Your task to perform on an android device: add a contact Image 0: 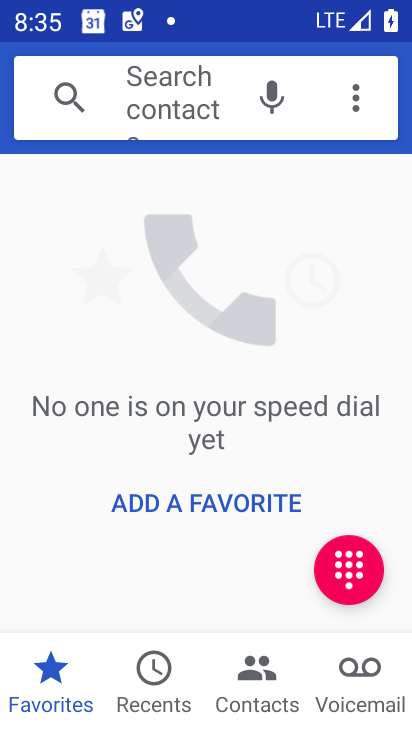
Step 0: click (235, 664)
Your task to perform on an android device: add a contact Image 1: 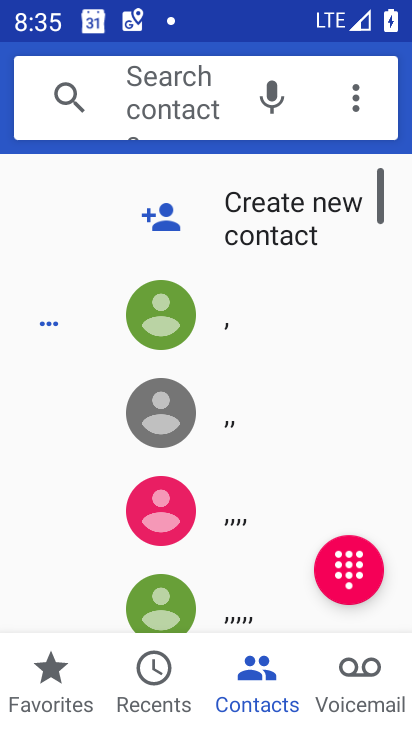
Step 1: click (211, 208)
Your task to perform on an android device: add a contact Image 2: 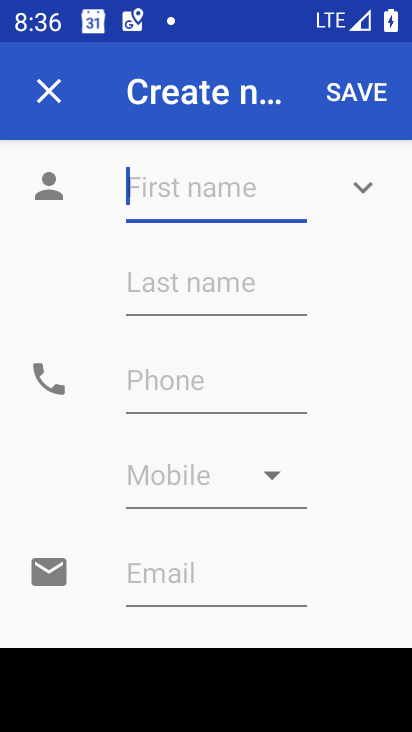
Step 2: type "mgjhhh"
Your task to perform on an android device: add a contact Image 3: 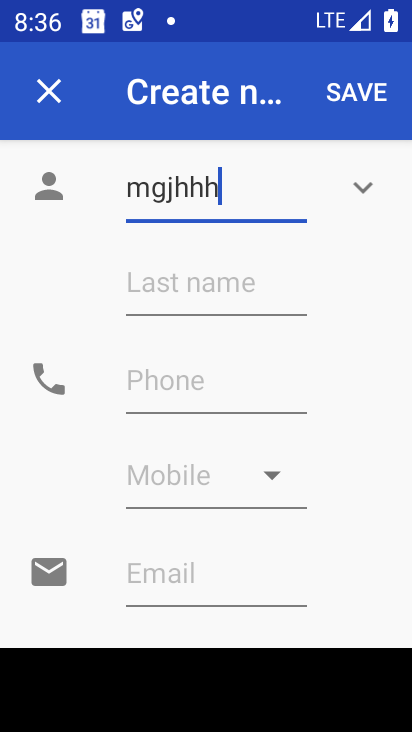
Step 3: click (248, 297)
Your task to perform on an android device: add a contact Image 4: 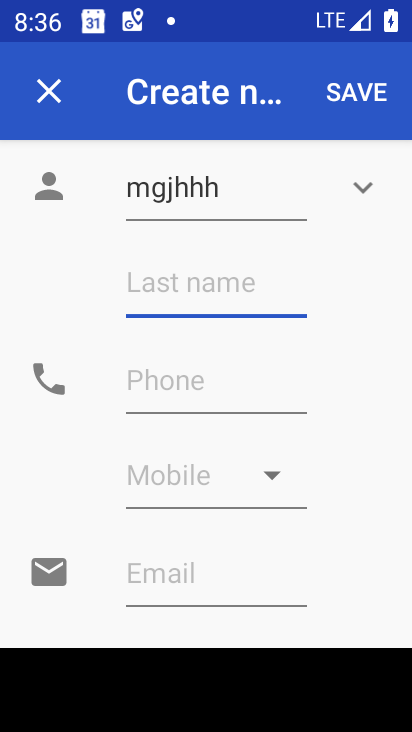
Step 4: type "mkvhk"
Your task to perform on an android device: add a contact Image 5: 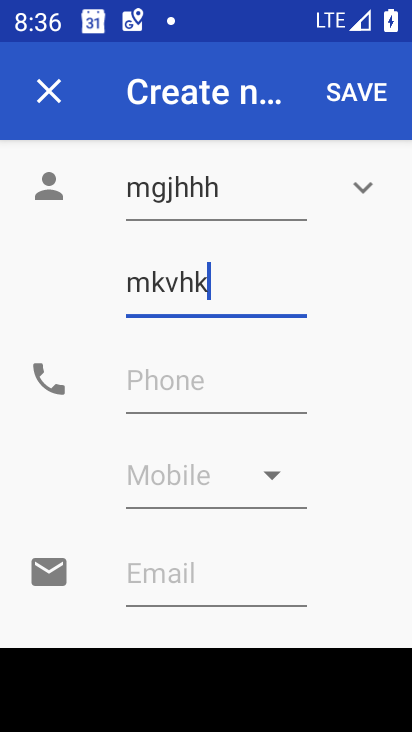
Step 5: click (233, 394)
Your task to perform on an android device: add a contact Image 6: 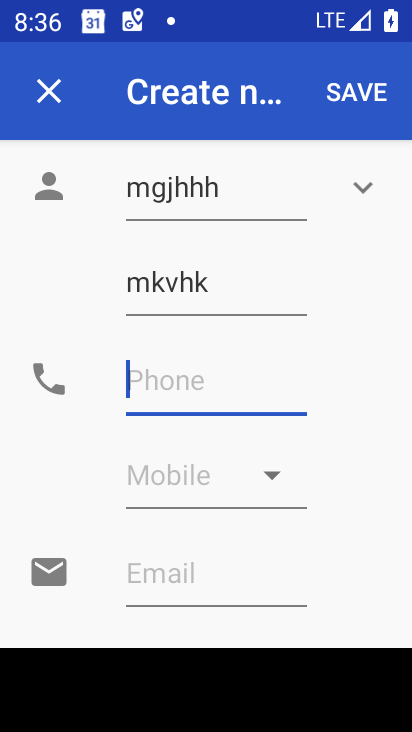
Step 6: type "78658567"
Your task to perform on an android device: add a contact Image 7: 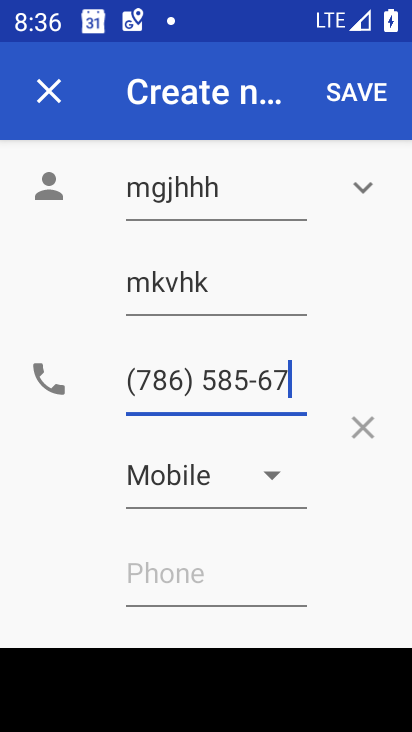
Step 7: click (364, 88)
Your task to perform on an android device: add a contact Image 8: 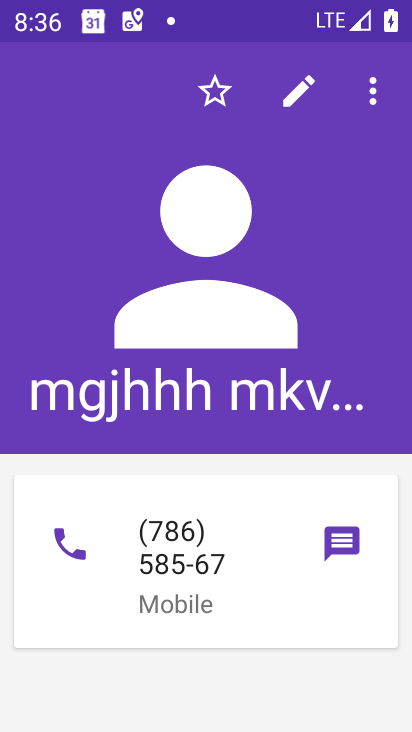
Step 8: task complete